Your task to perform on an android device: make emails show in primary in the gmail app Image 0: 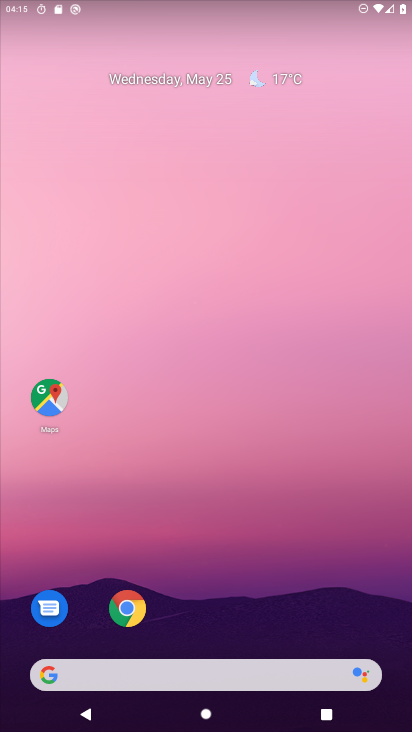
Step 0: drag from (233, 543) to (284, 175)
Your task to perform on an android device: make emails show in primary in the gmail app Image 1: 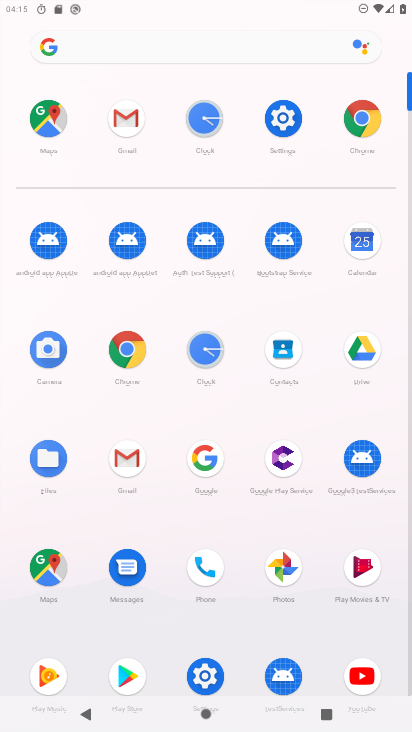
Step 1: click (135, 125)
Your task to perform on an android device: make emails show in primary in the gmail app Image 2: 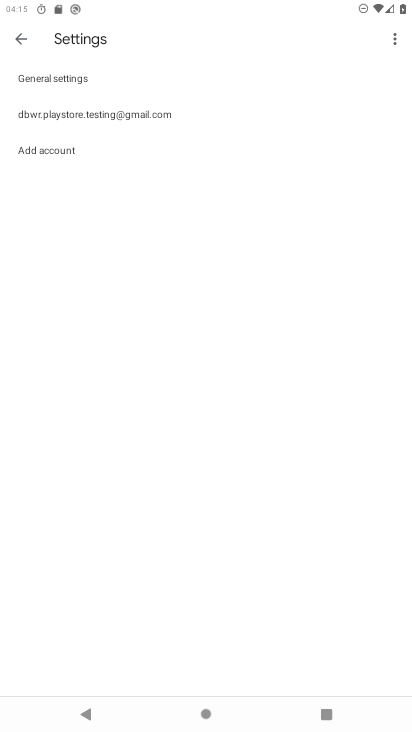
Step 2: click (59, 118)
Your task to perform on an android device: make emails show in primary in the gmail app Image 3: 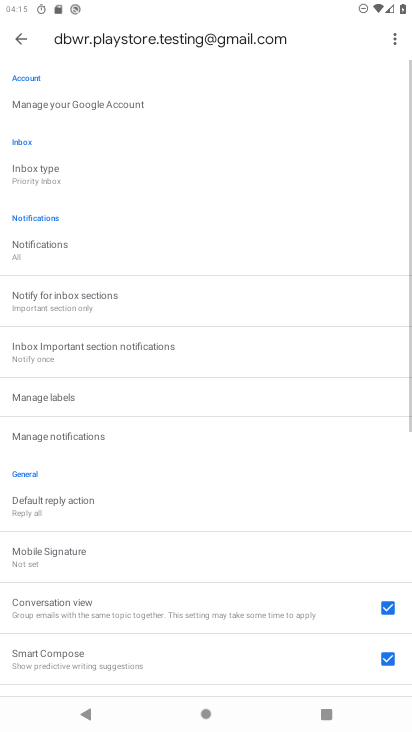
Step 3: click (33, 164)
Your task to perform on an android device: make emails show in primary in the gmail app Image 4: 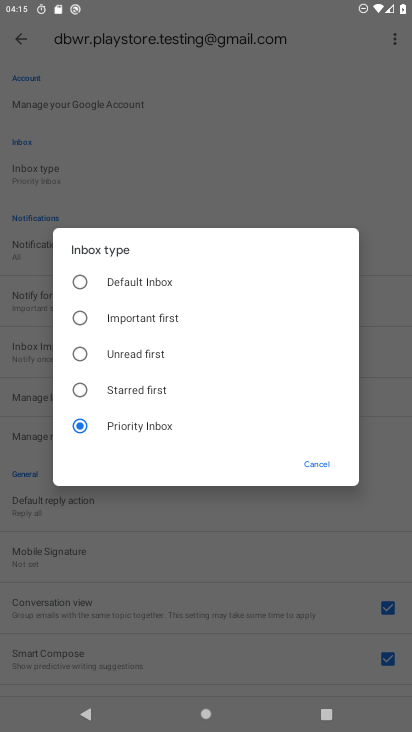
Step 4: click (117, 281)
Your task to perform on an android device: make emails show in primary in the gmail app Image 5: 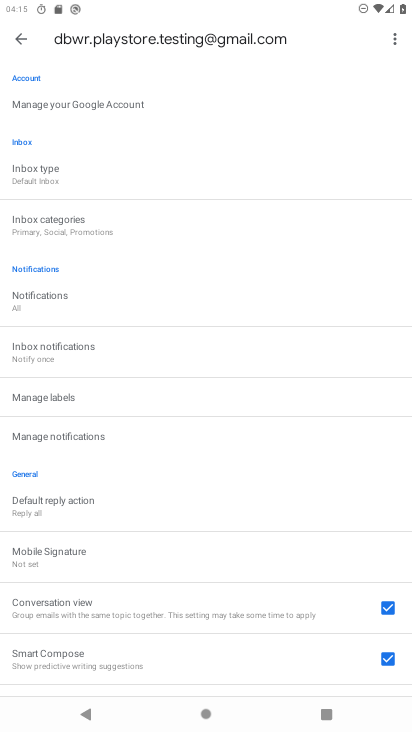
Step 5: click (69, 241)
Your task to perform on an android device: make emails show in primary in the gmail app Image 6: 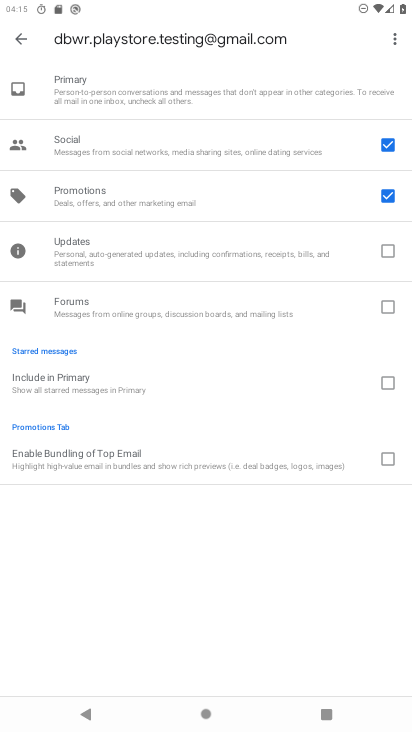
Step 6: task complete